Your task to perform on an android device: Show me popular videos on Youtube Image 0: 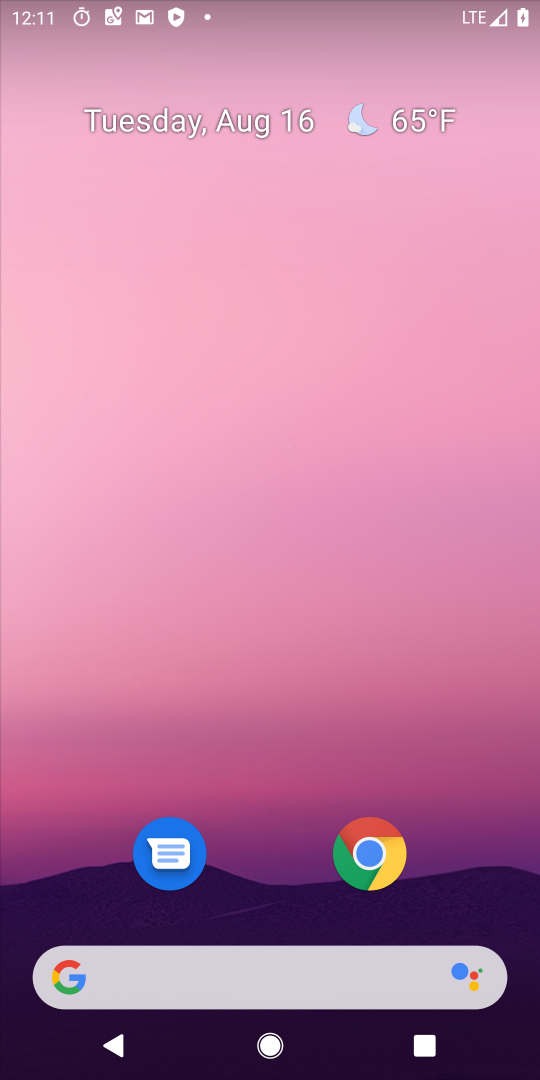
Step 0: drag from (255, 821) to (236, 371)
Your task to perform on an android device: Show me popular videos on Youtube Image 1: 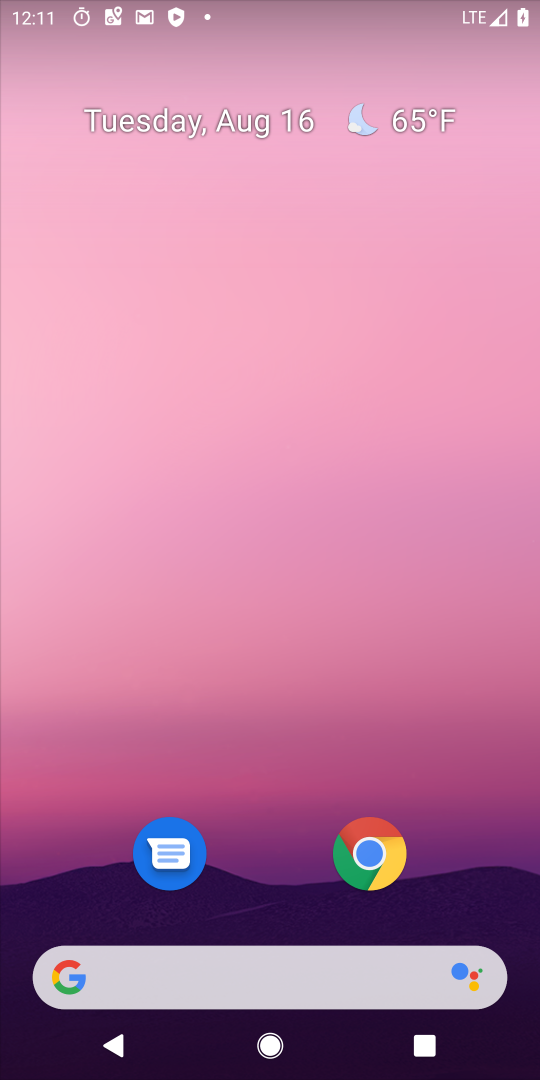
Step 1: drag from (329, 874) to (278, 382)
Your task to perform on an android device: Show me popular videos on Youtube Image 2: 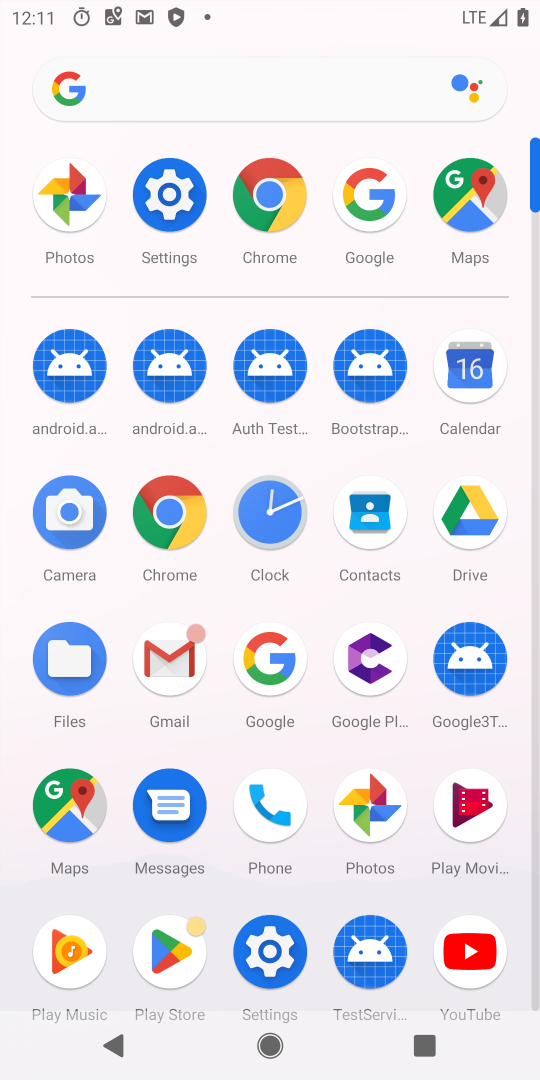
Step 2: click (470, 944)
Your task to perform on an android device: Show me popular videos on Youtube Image 3: 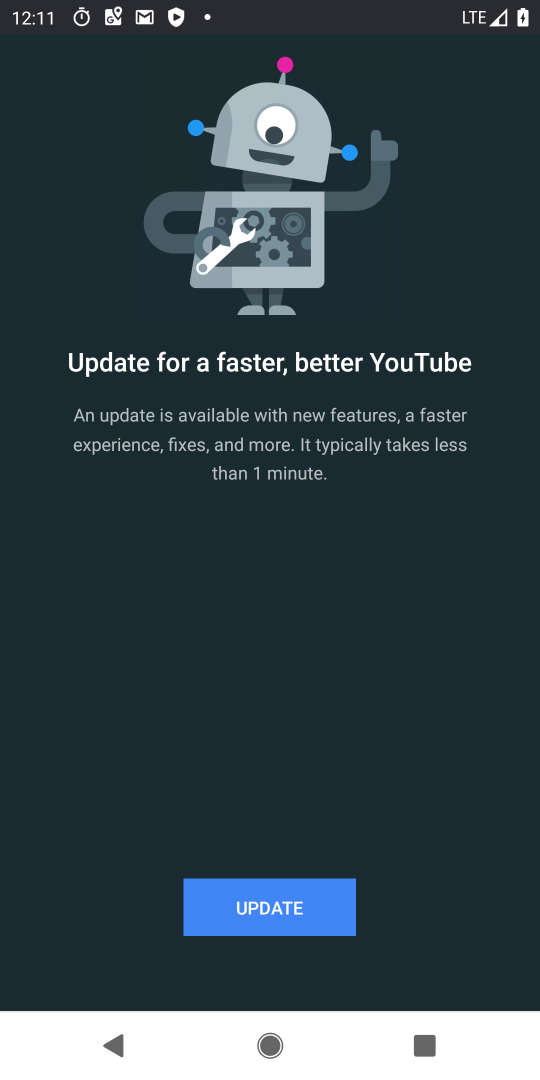
Step 3: click (267, 914)
Your task to perform on an android device: Show me popular videos on Youtube Image 4: 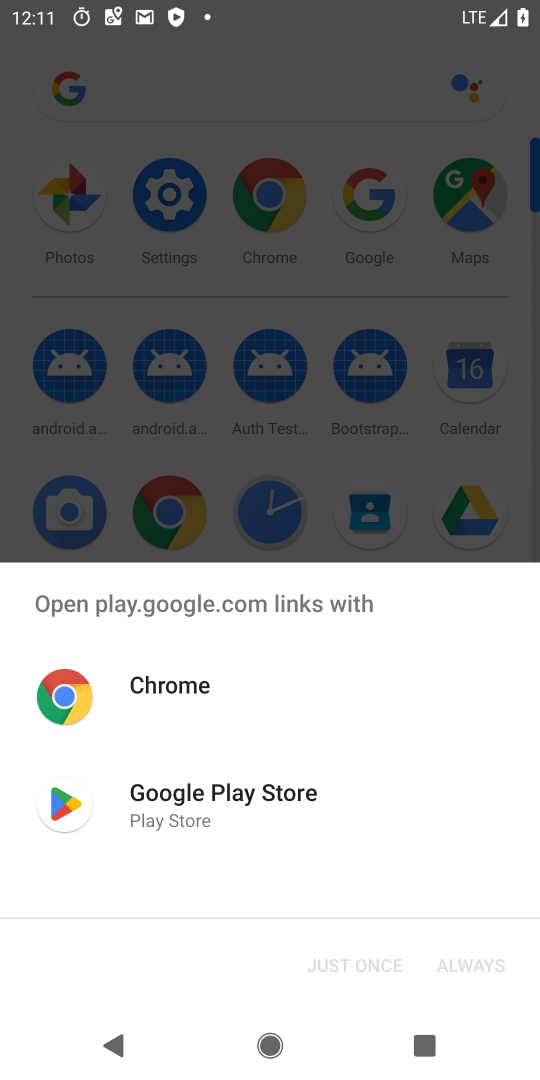
Step 4: click (222, 808)
Your task to perform on an android device: Show me popular videos on Youtube Image 5: 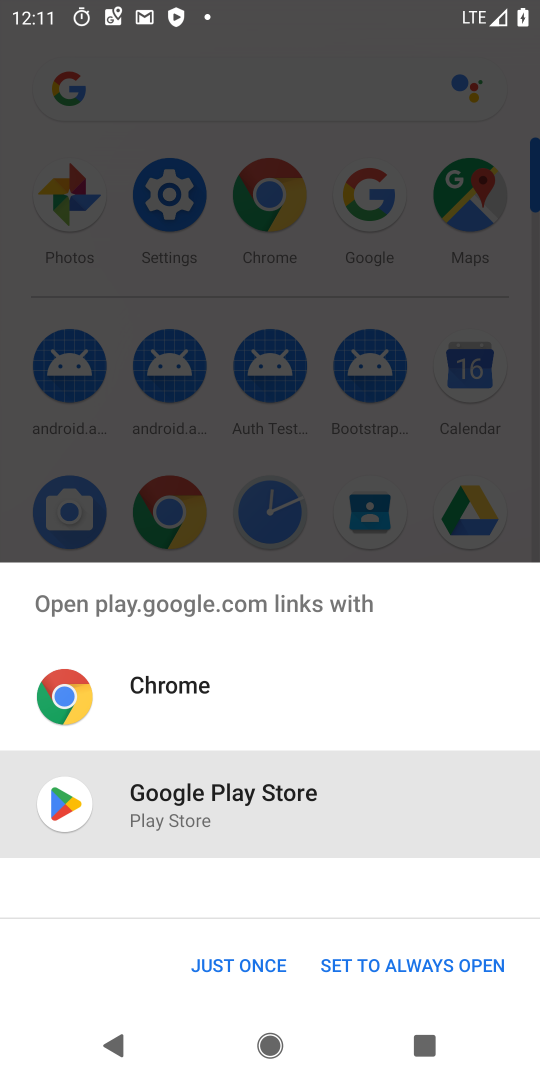
Step 5: click (270, 962)
Your task to perform on an android device: Show me popular videos on Youtube Image 6: 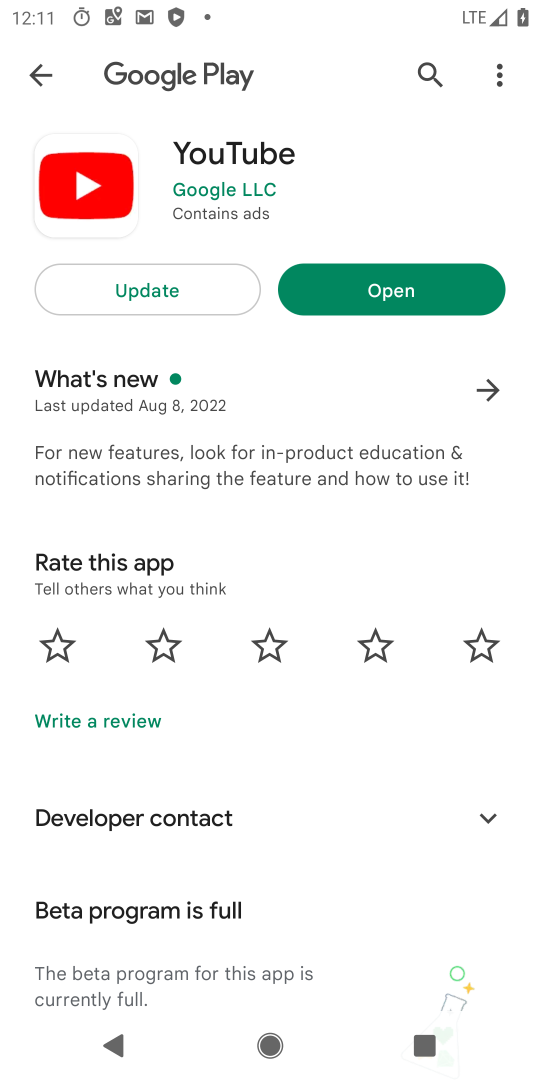
Step 6: click (186, 303)
Your task to perform on an android device: Show me popular videos on Youtube Image 7: 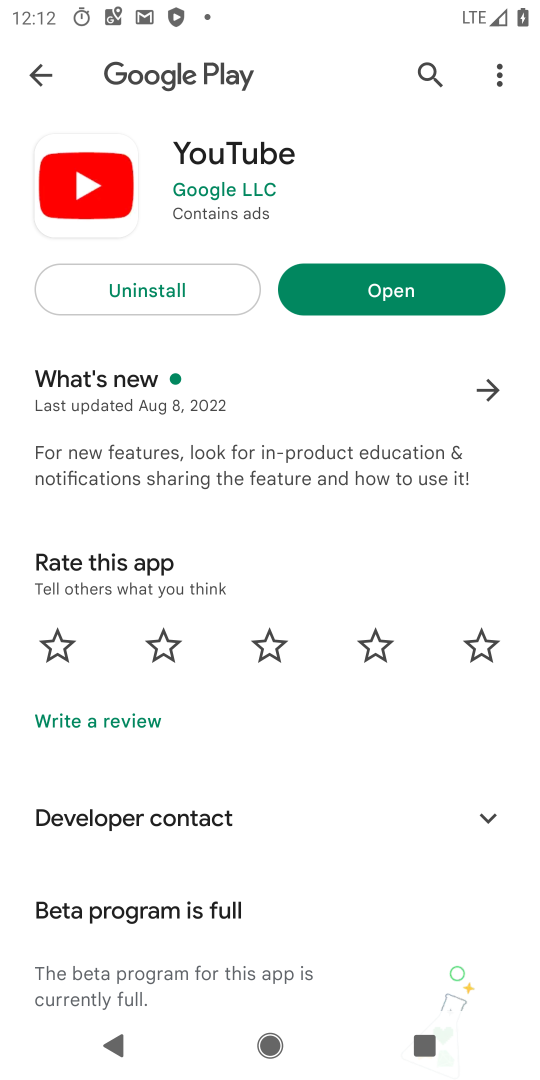
Step 7: click (467, 289)
Your task to perform on an android device: Show me popular videos on Youtube Image 8: 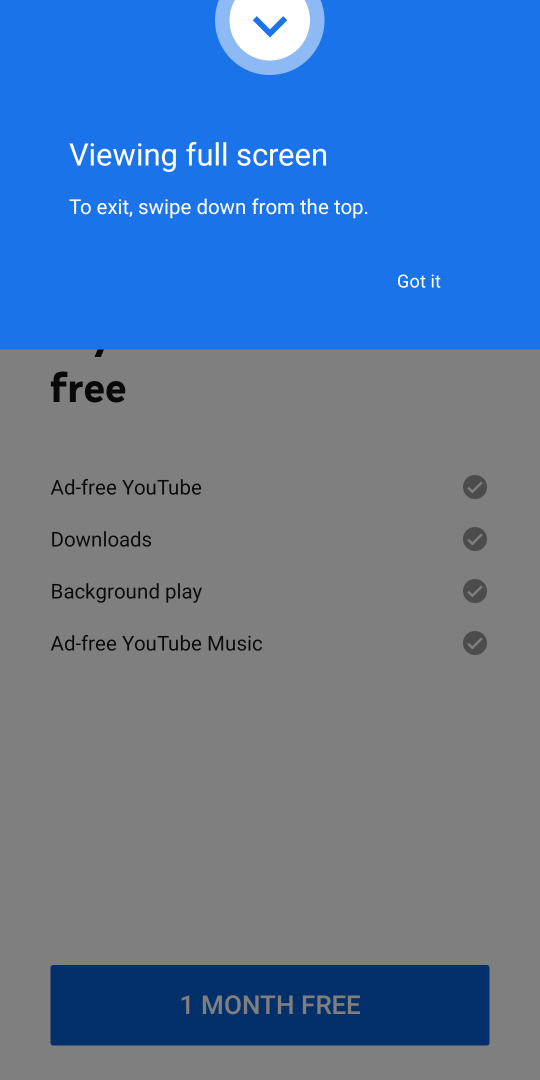
Step 8: click (397, 288)
Your task to perform on an android device: Show me popular videos on Youtube Image 9: 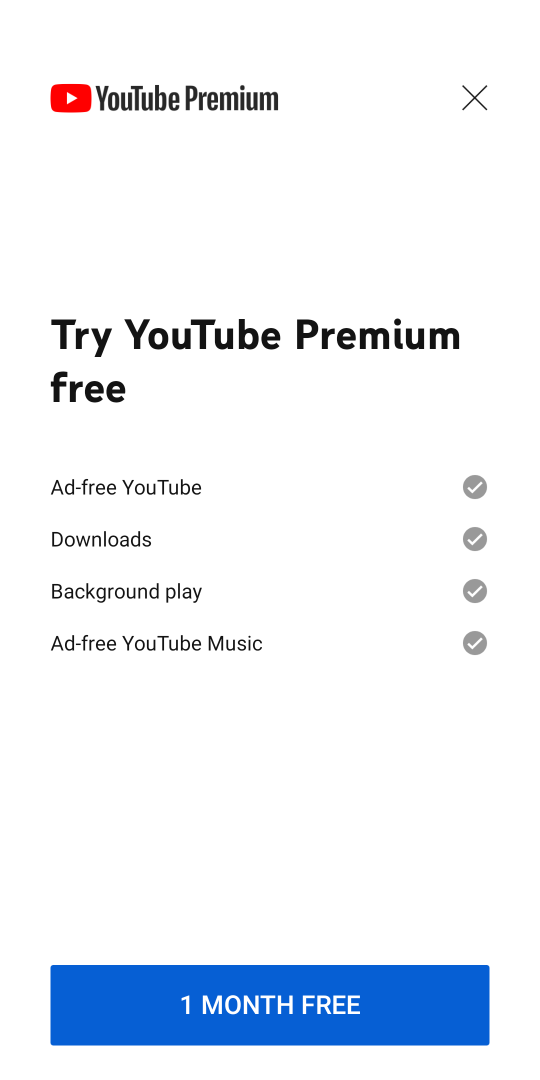
Step 9: click (484, 109)
Your task to perform on an android device: Show me popular videos on Youtube Image 10: 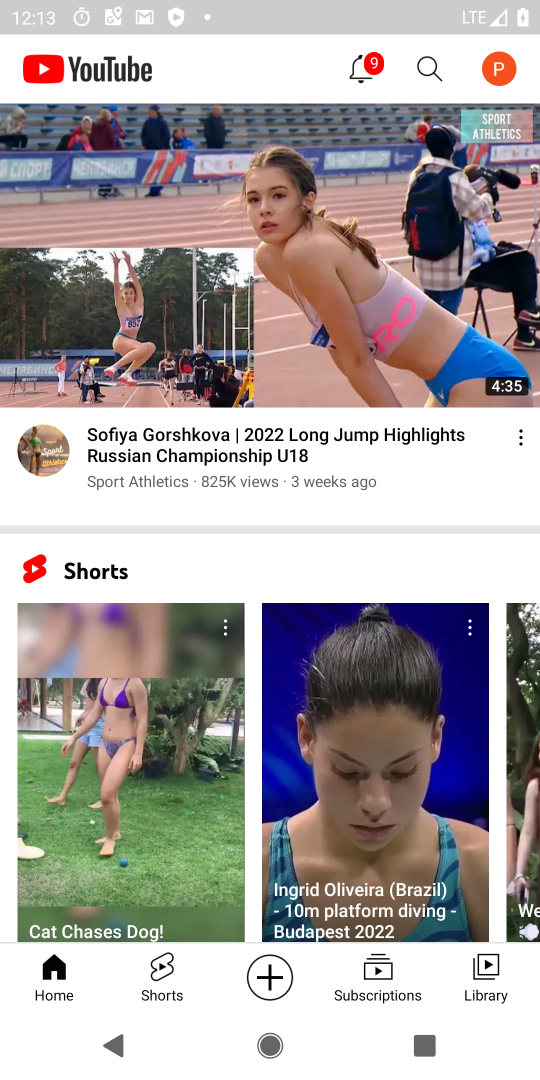
Step 10: task complete